Your task to perform on an android device: Open the calendar app, open the side menu, and click the "Day" option Image 0: 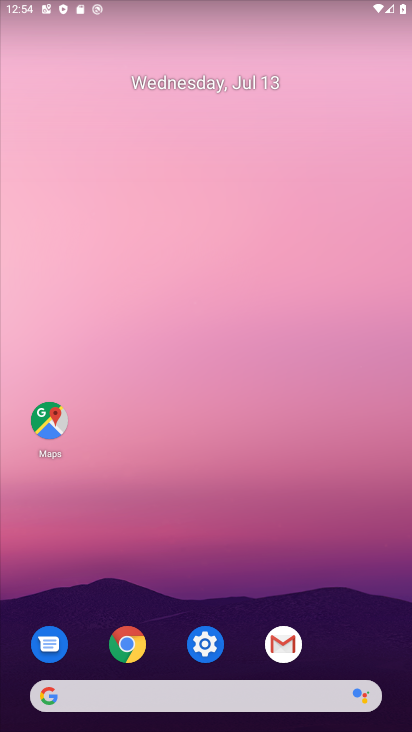
Step 0: drag from (245, 666) to (326, 7)
Your task to perform on an android device: Open the calendar app, open the side menu, and click the "Day" option Image 1: 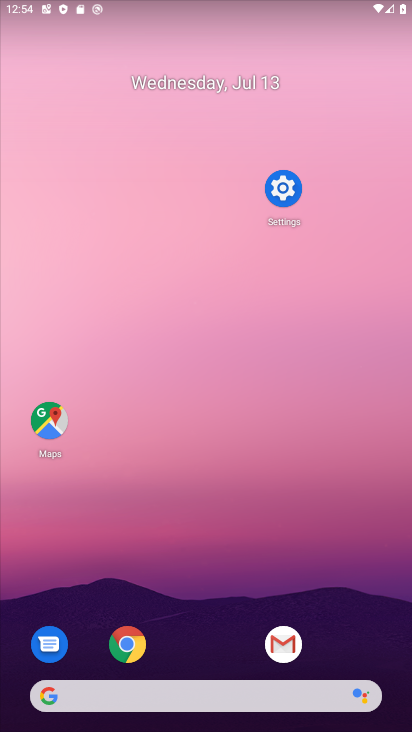
Step 1: drag from (320, 705) to (309, 84)
Your task to perform on an android device: Open the calendar app, open the side menu, and click the "Day" option Image 2: 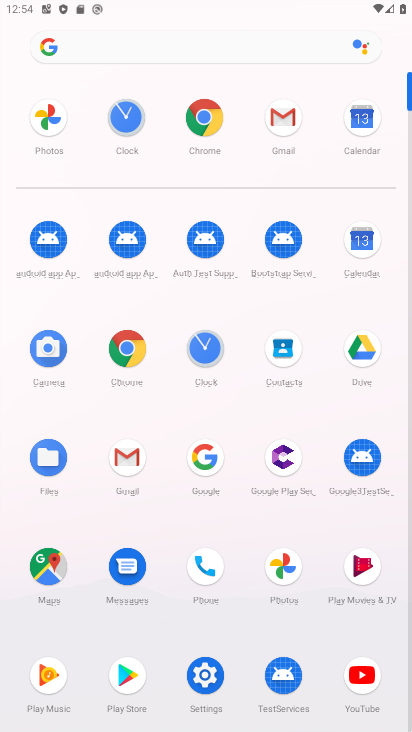
Step 2: click (354, 248)
Your task to perform on an android device: Open the calendar app, open the side menu, and click the "Day" option Image 3: 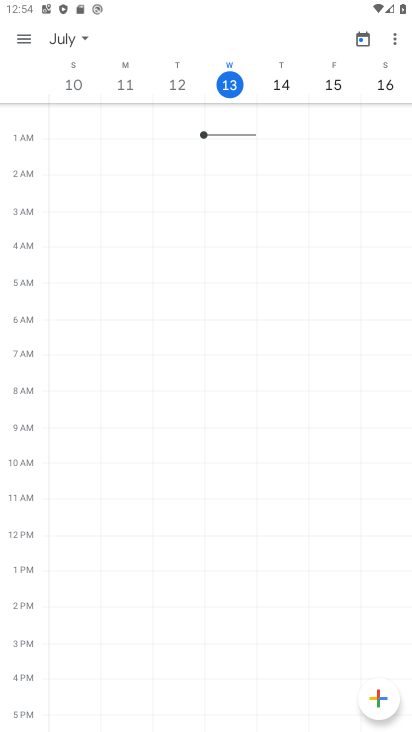
Step 3: click (27, 37)
Your task to perform on an android device: Open the calendar app, open the side menu, and click the "Day" option Image 4: 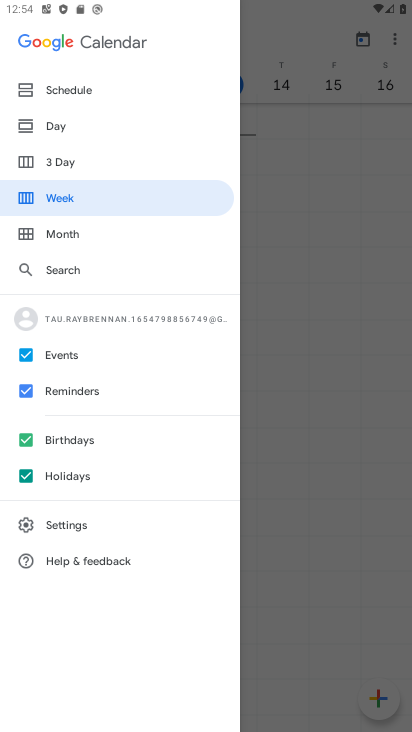
Step 4: click (69, 122)
Your task to perform on an android device: Open the calendar app, open the side menu, and click the "Day" option Image 5: 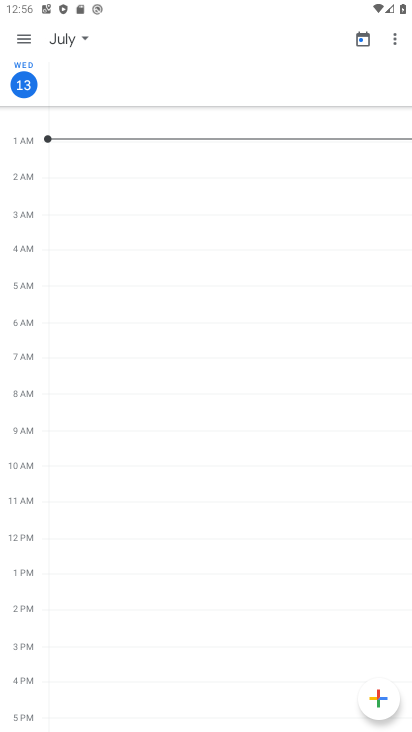
Step 5: task complete